Your task to perform on an android device: Open Yahoo.com Image 0: 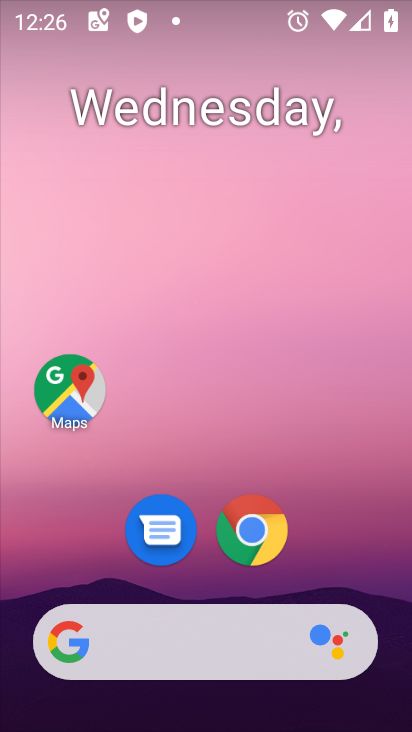
Step 0: click (259, 531)
Your task to perform on an android device: Open Yahoo.com Image 1: 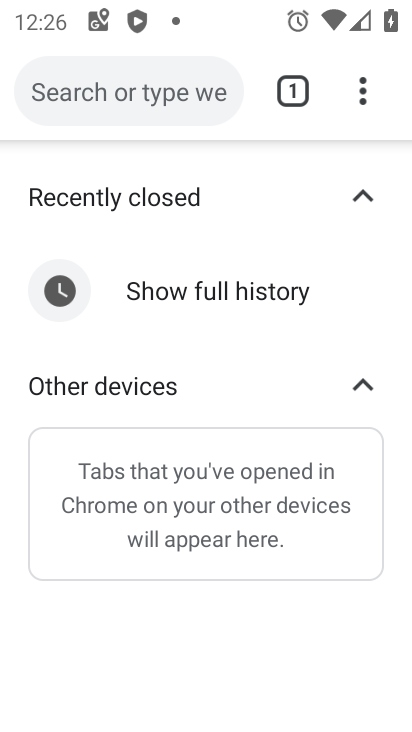
Step 1: click (111, 96)
Your task to perform on an android device: Open Yahoo.com Image 2: 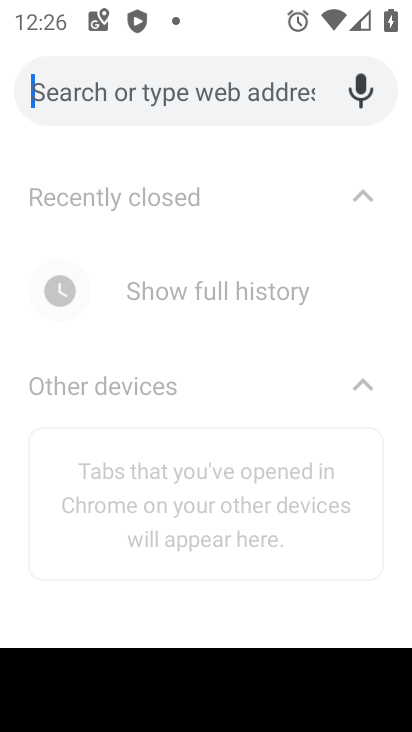
Step 2: type "Yahoo.com"
Your task to perform on an android device: Open Yahoo.com Image 3: 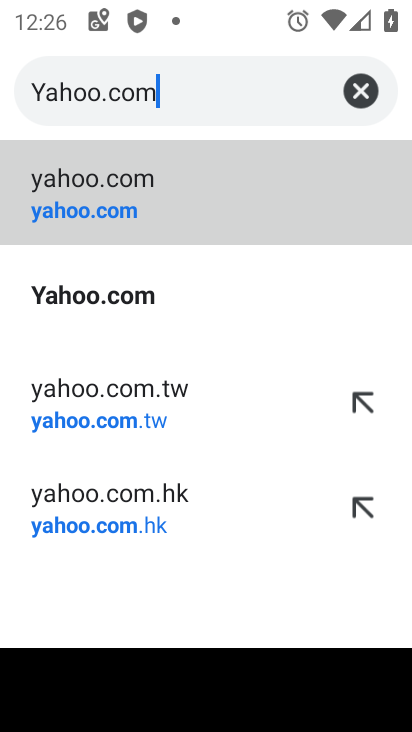
Step 3: click (93, 187)
Your task to perform on an android device: Open Yahoo.com Image 4: 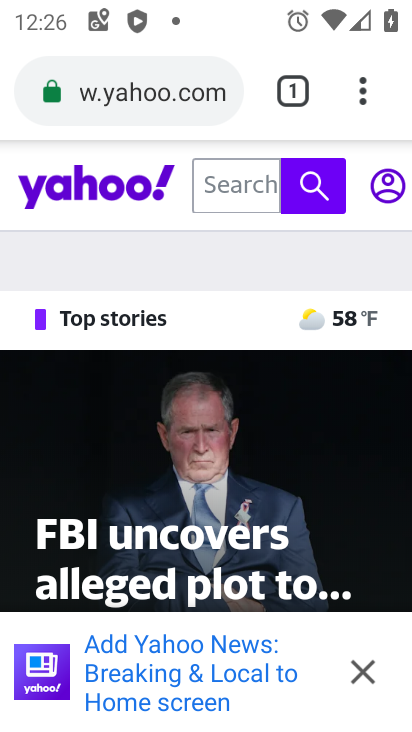
Step 4: task complete